Your task to perform on an android device: Open eBay Image 0: 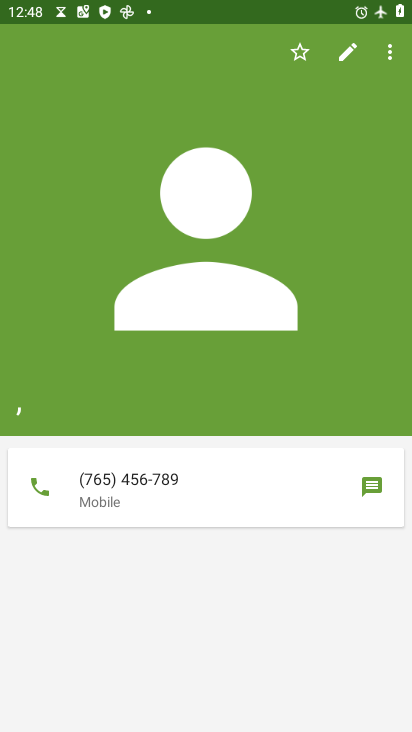
Step 0: press home button
Your task to perform on an android device: Open eBay Image 1: 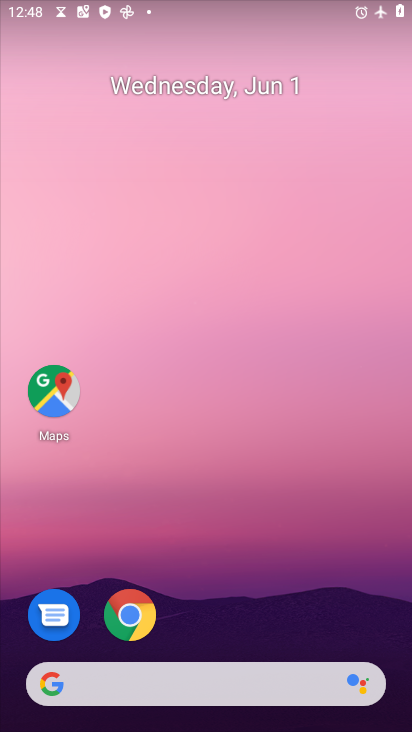
Step 1: drag from (308, 446) to (263, 1)
Your task to perform on an android device: Open eBay Image 2: 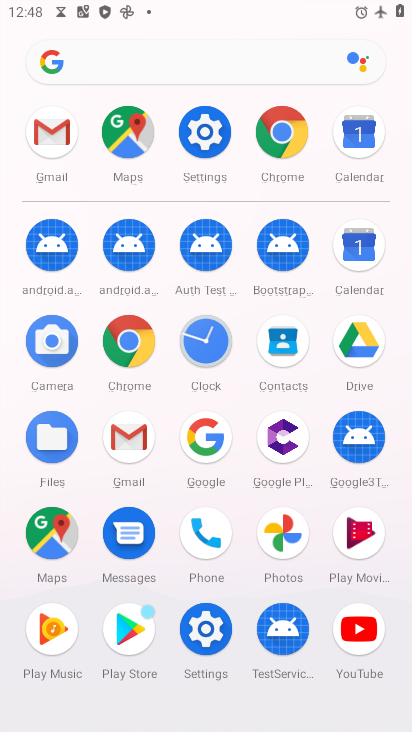
Step 2: click (280, 134)
Your task to perform on an android device: Open eBay Image 3: 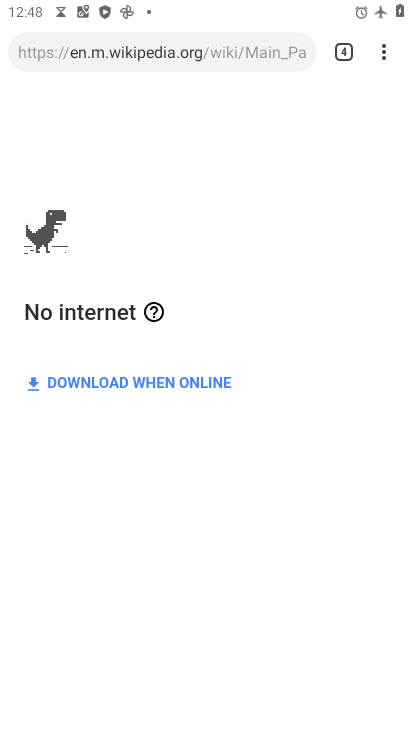
Step 3: click (195, 47)
Your task to perform on an android device: Open eBay Image 4: 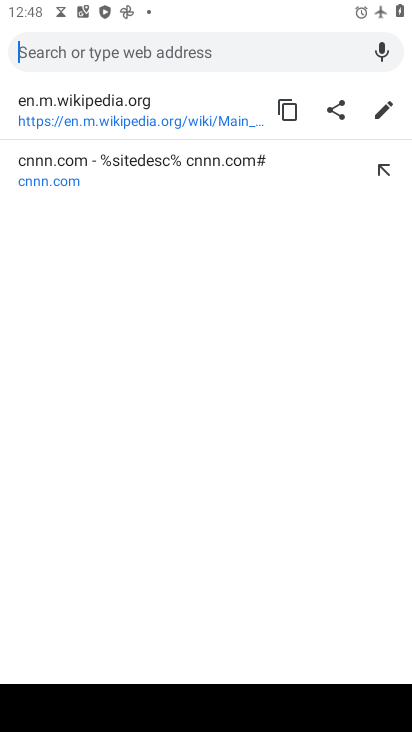
Step 4: type "eabay"
Your task to perform on an android device: Open eBay Image 5: 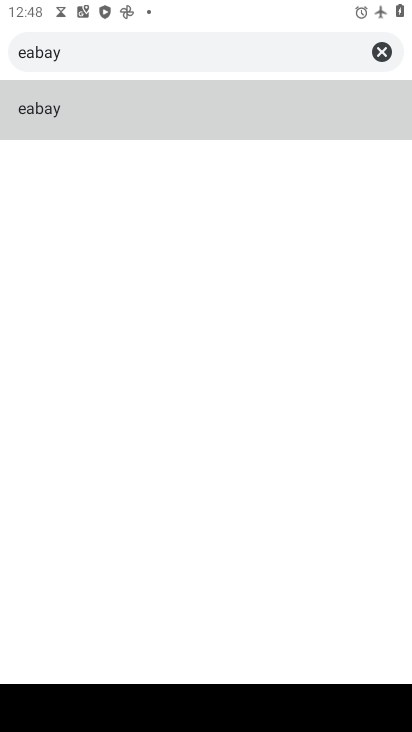
Step 5: task complete